Your task to perform on an android device: check data usage Image 0: 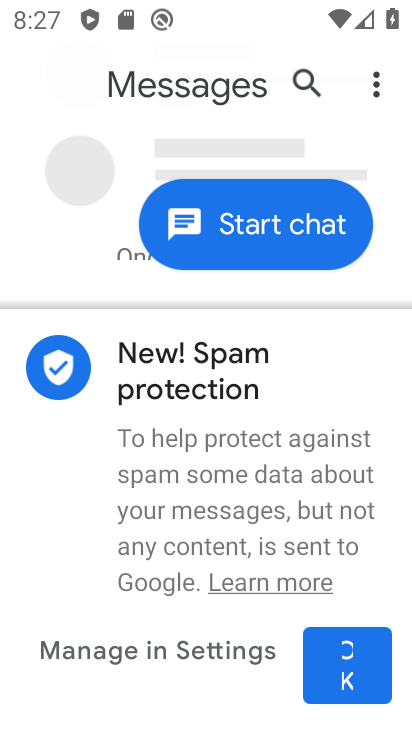
Step 0: press home button
Your task to perform on an android device: check data usage Image 1: 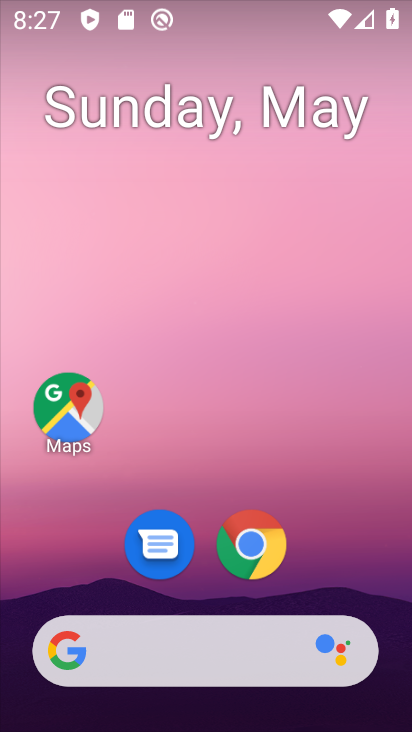
Step 1: drag from (319, 561) to (341, 7)
Your task to perform on an android device: check data usage Image 2: 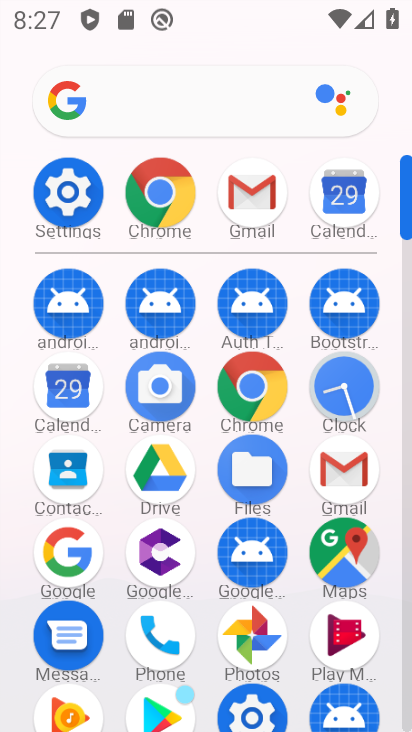
Step 2: click (79, 189)
Your task to perform on an android device: check data usage Image 3: 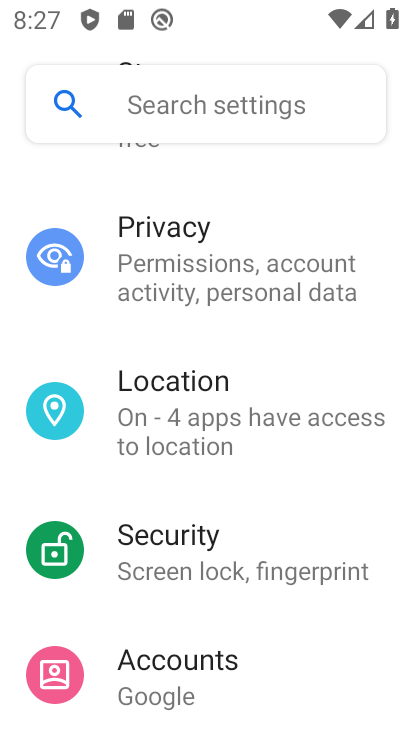
Step 3: drag from (152, 246) to (152, 727)
Your task to perform on an android device: check data usage Image 4: 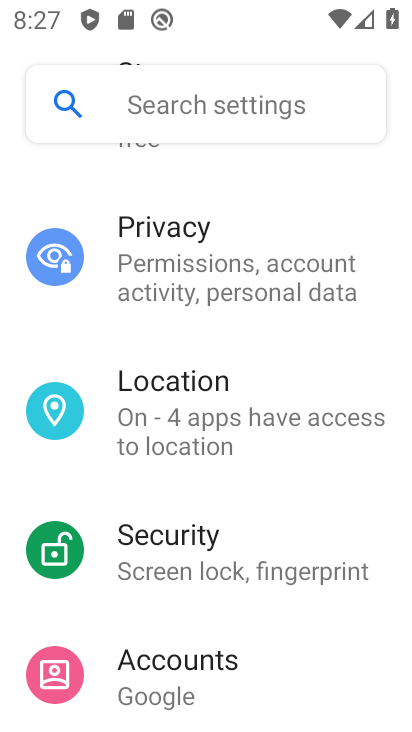
Step 4: drag from (178, 261) to (152, 701)
Your task to perform on an android device: check data usage Image 5: 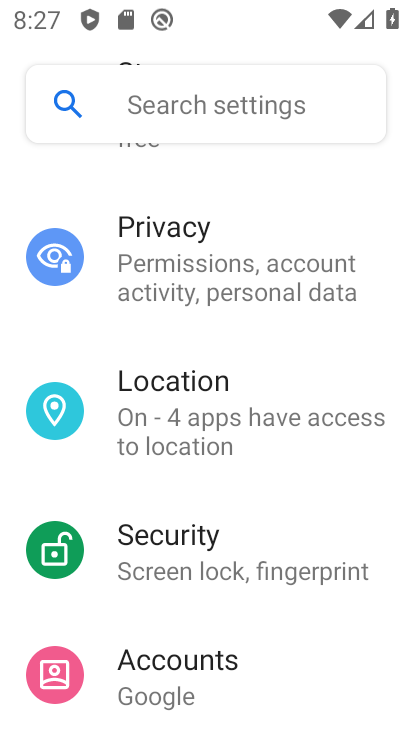
Step 5: drag from (169, 350) to (160, 725)
Your task to perform on an android device: check data usage Image 6: 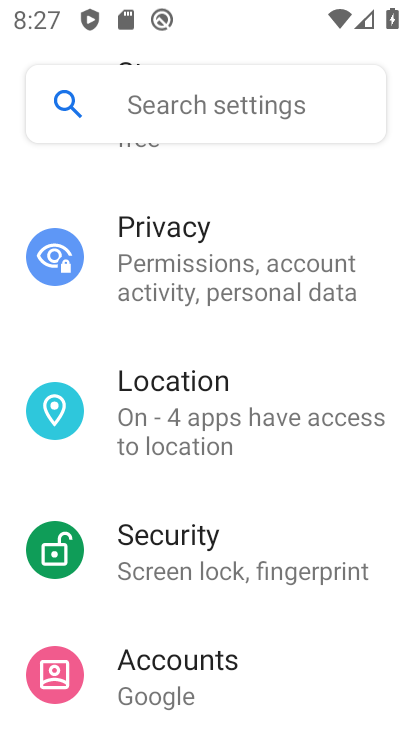
Step 6: drag from (305, 156) to (339, 531)
Your task to perform on an android device: check data usage Image 7: 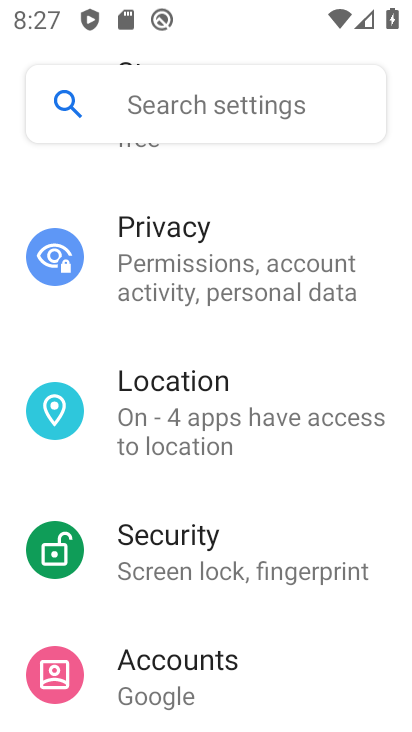
Step 7: drag from (206, 221) to (154, 608)
Your task to perform on an android device: check data usage Image 8: 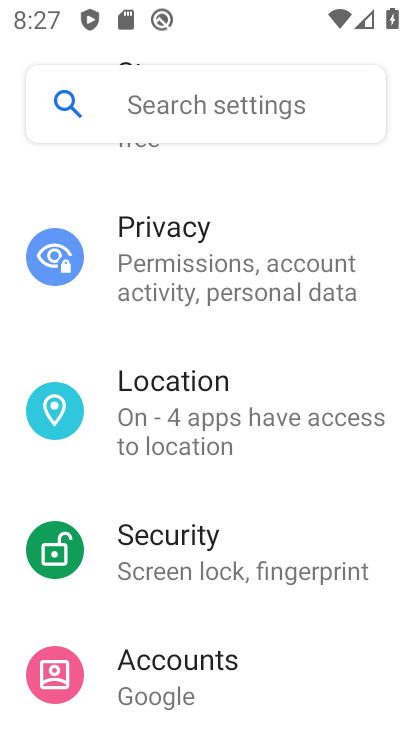
Step 8: drag from (203, 559) to (233, 246)
Your task to perform on an android device: check data usage Image 9: 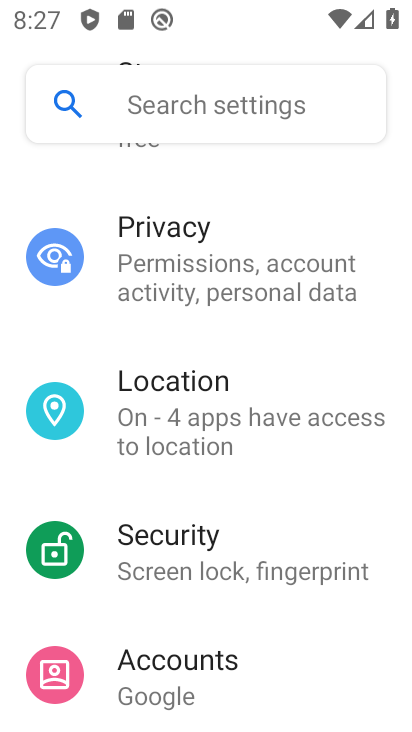
Step 9: drag from (204, 603) to (191, 241)
Your task to perform on an android device: check data usage Image 10: 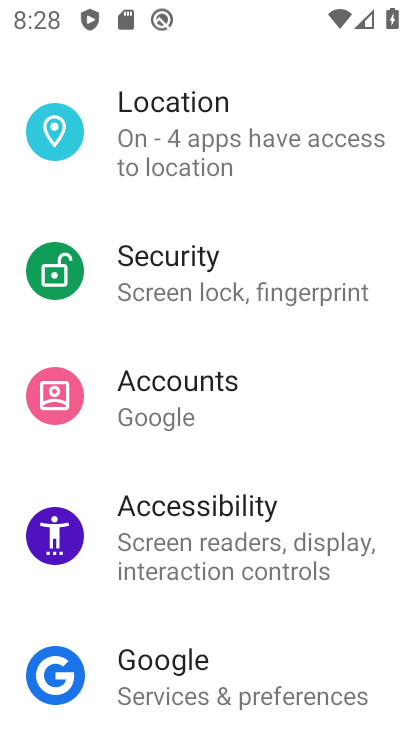
Step 10: drag from (212, 315) to (204, 640)
Your task to perform on an android device: check data usage Image 11: 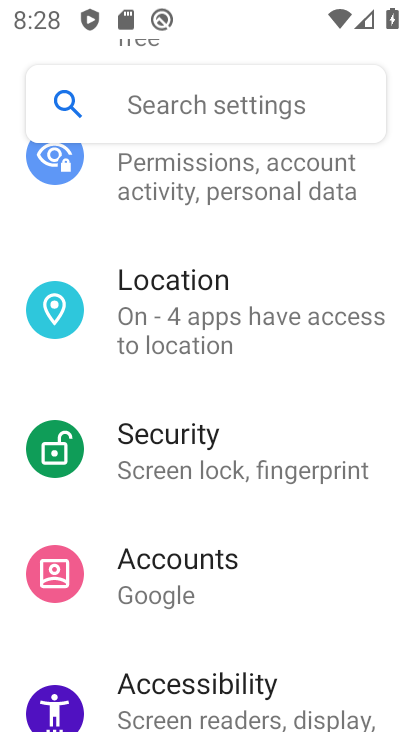
Step 11: drag from (169, 244) to (210, 638)
Your task to perform on an android device: check data usage Image 12: 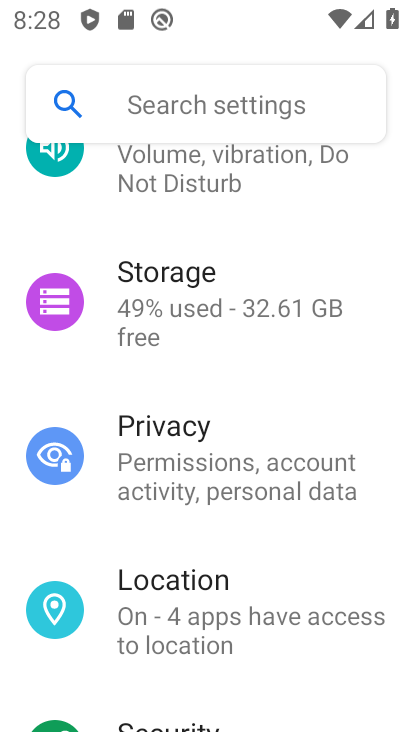
Step 12: drag from (226, 285) to (280, 689)
Your task to perform on an android device: check data usage Image 13: 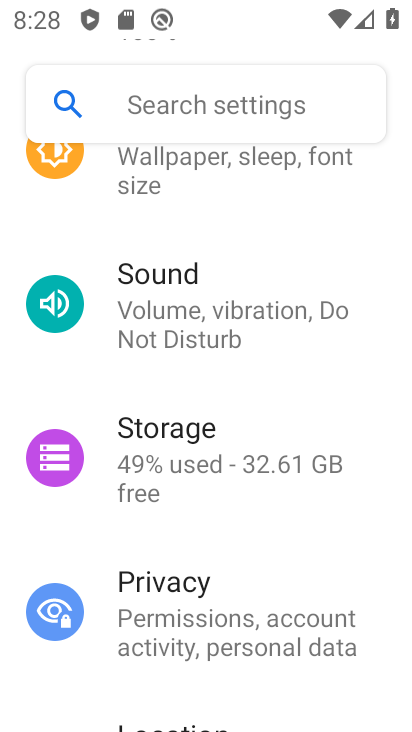
Step 13: drag from (260, 303) to (290, 718)
Your task to perform on an android device: check data usage Image 14: 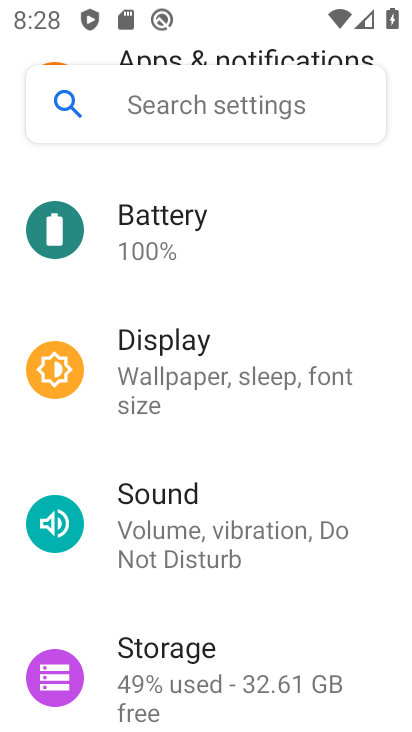
Step 14: drag from (195, 228) to (235, 731)
Your task to perform on an android device: check data usage Image 15: 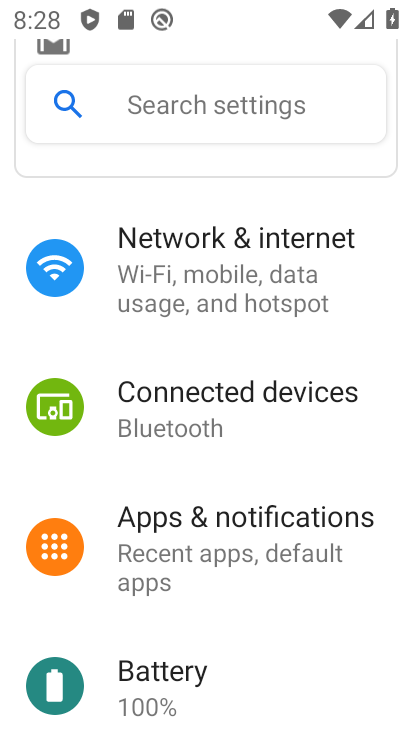
Step 15: drag from (156, 255) to (211, 726)
Your task to perform on an android device: check data usage Image 16: 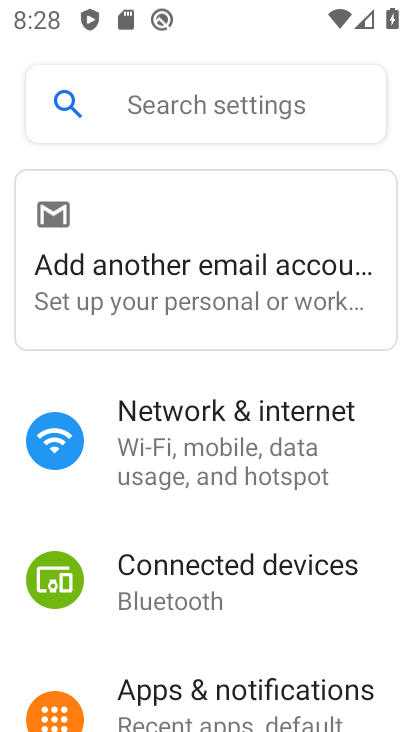
Step 16: click (167, 454)
Your task to perform on an android device: check data usage Image 17: 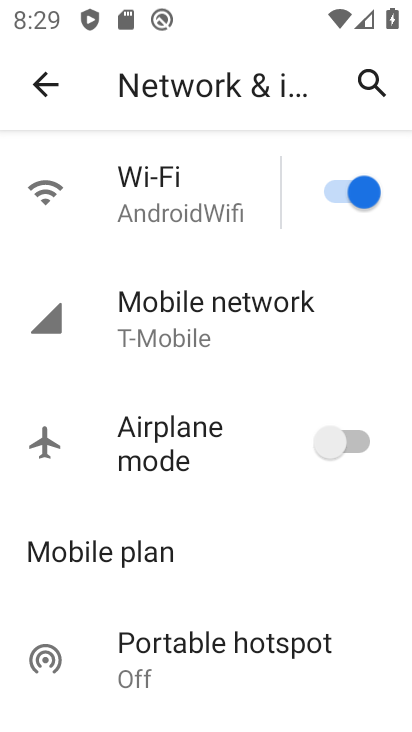
Step 17: click (216, 340)
Your task to perform on an android device: check data usage Image 18: 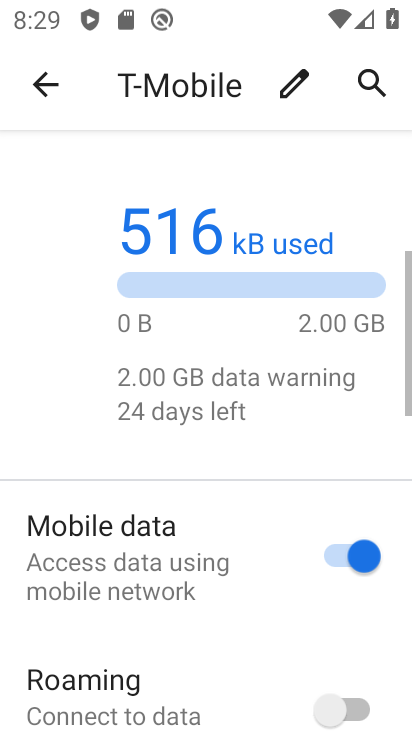
Step 18: task complete